Your task to perform on an android device: turn off location history Image 0: 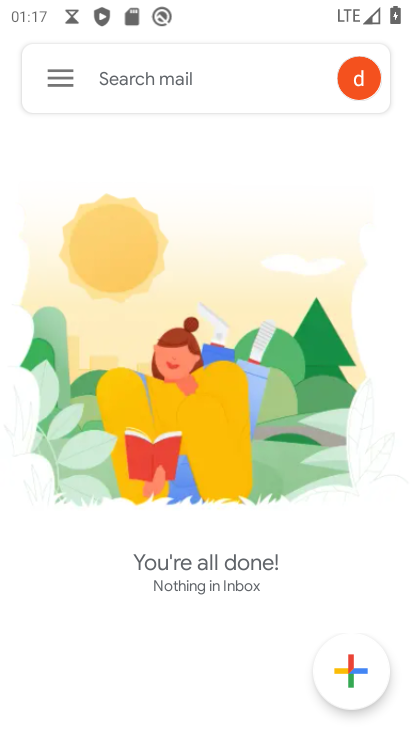
Step 0: press home button
Your task to perform on an android device: turn off location history Image 1: 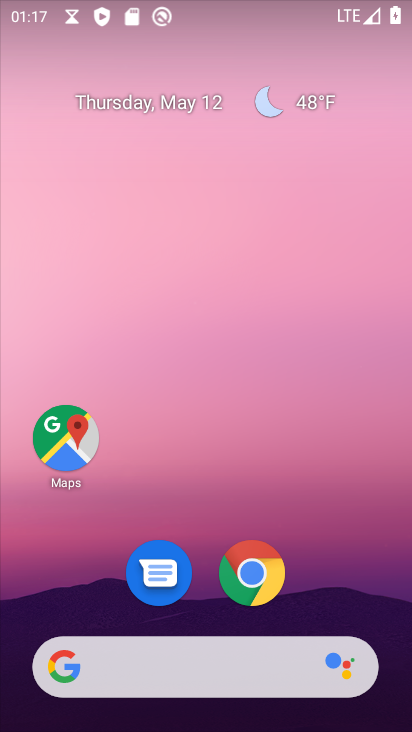
Step 1: drag from (362, 567) to (354, 2)
Your task to perform on an android device: turn off location history Image 2: 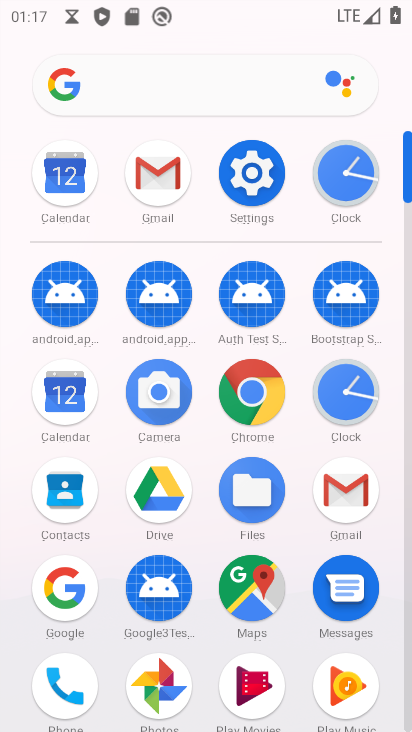
Step 2: click (264, 168)
Your task to perform on an android device: turn off location history Image 3: 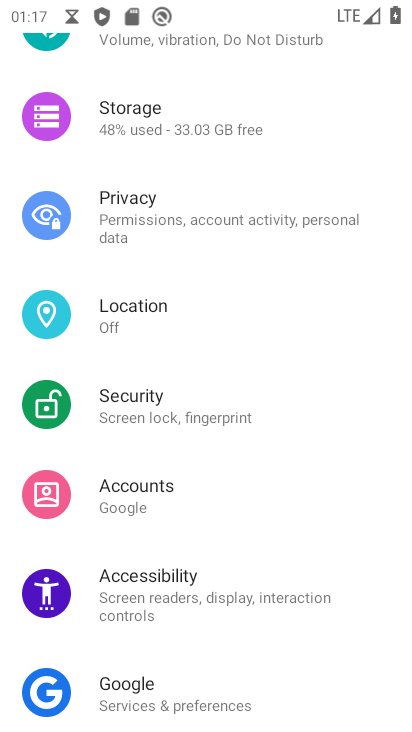
Step 3: click (204, 311)
Your task to perform on an android device: turn off location history Image 4: 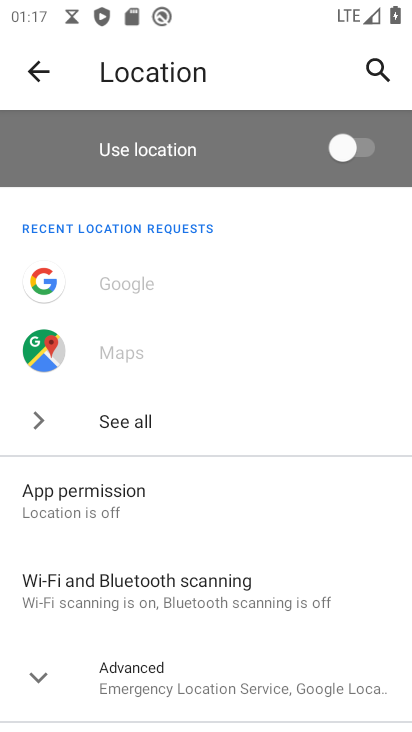
Step 4: click (265, 682)
Your task to perform on an android device: turn off location history Image 5: 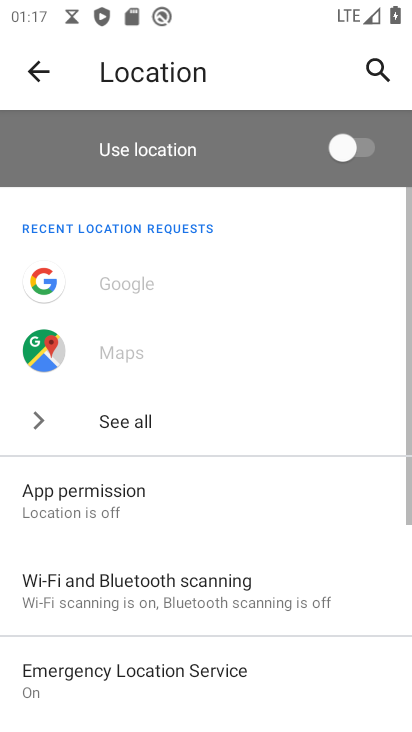
Step 5: drag from (266, 659) to (391, 155)
Your task to perform on an android device: turn off location history Image 6: 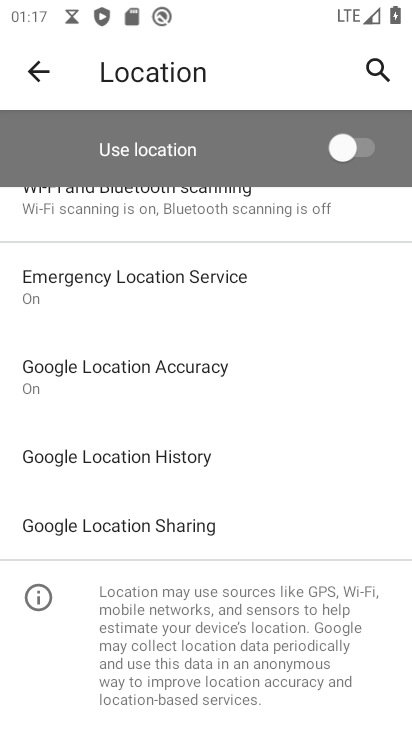
Step 6: click (216, 453)
Your task to perform on an android device: turn off location history Image 7: 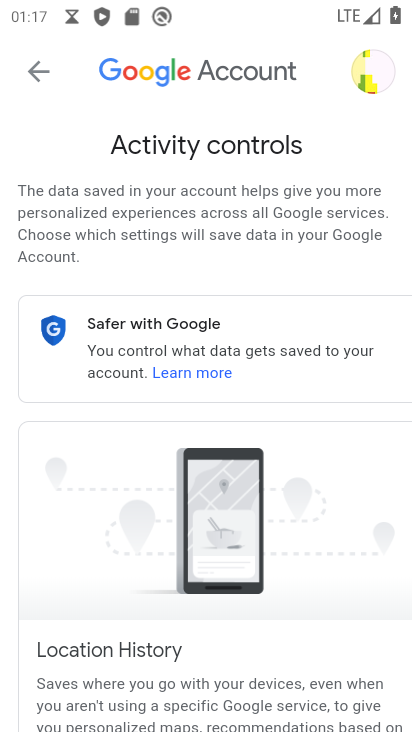
Step 7: task complete